Your task to perform on an android device: turn off wifi Image 0: 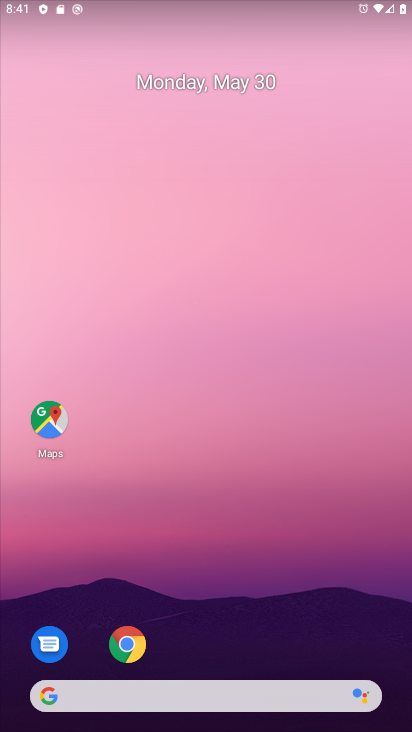
Step 0: drag from (388, 661) to (320, 156)
Your task to perform on an android device: turn off wifi Image 1: 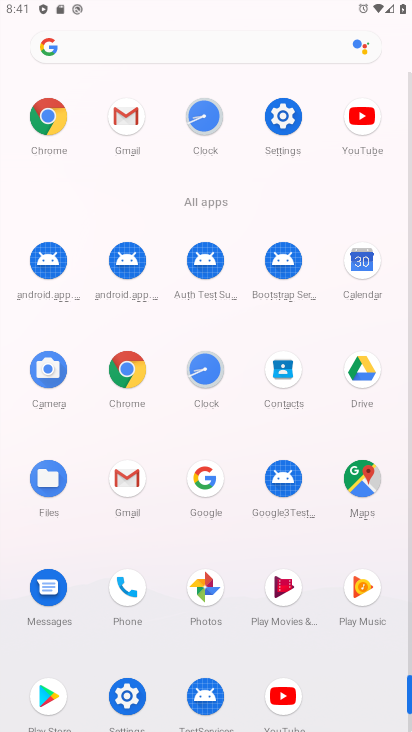
Step 1: click (127, 695)
Your task to perform on an android device: turn off wifi Image 2: 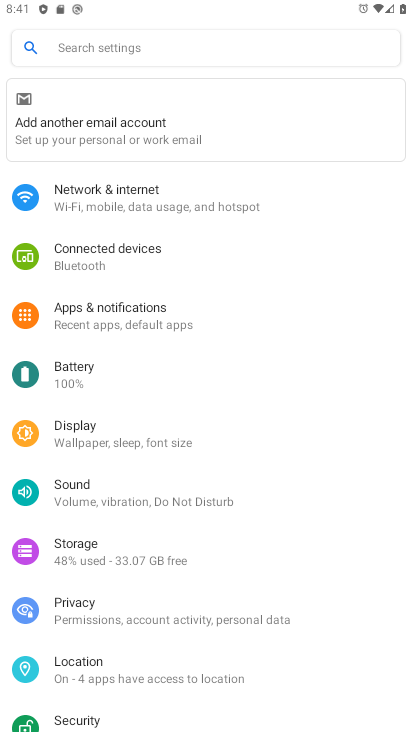
Step 2: click (113, 185)
Your task to perform on an android device: turn off wifi Image 3: 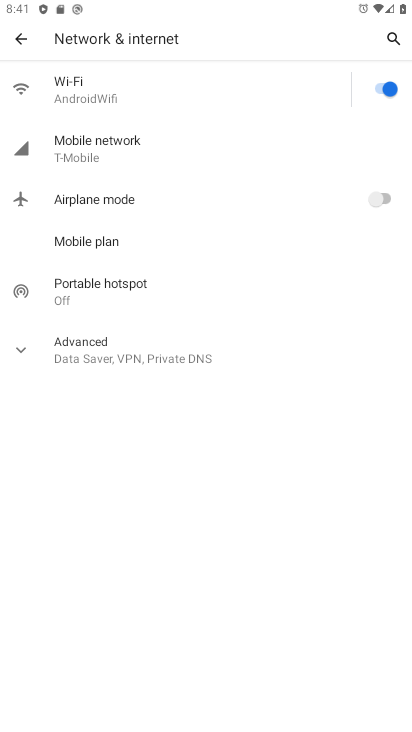
Step 3: click (375, 85)
Your task to perform on an android device: turn off wifi Image 4: 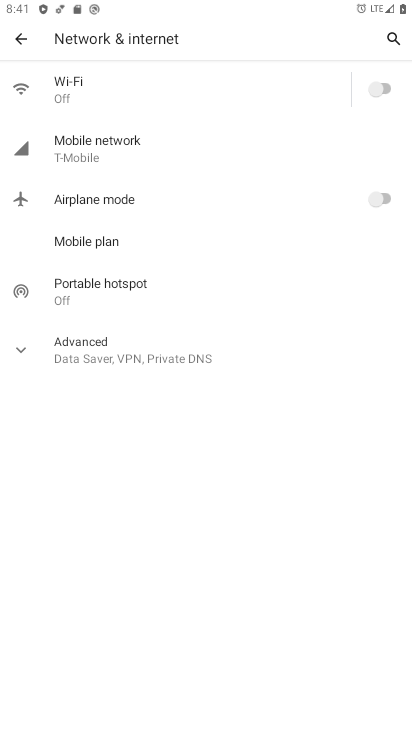
Step 4: task complete